Your task to perform on an android device: remove spam from my inbox in the gmail app Image 0: 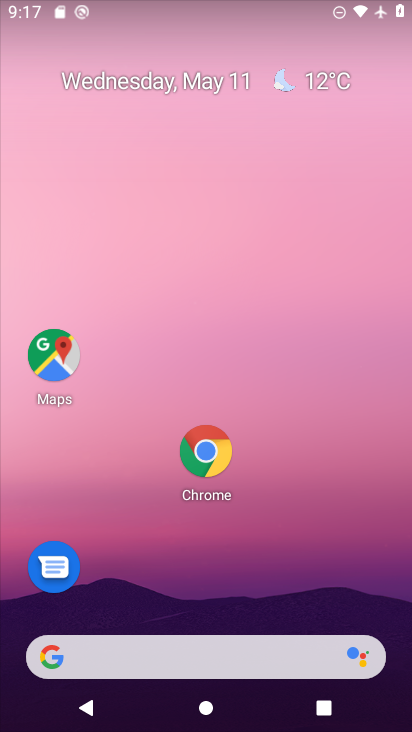
Step 0: drag from (136, 657) to (251, 141)
Your task to perform on an android device: remove spam from my inbox in the gmail app Image 1: 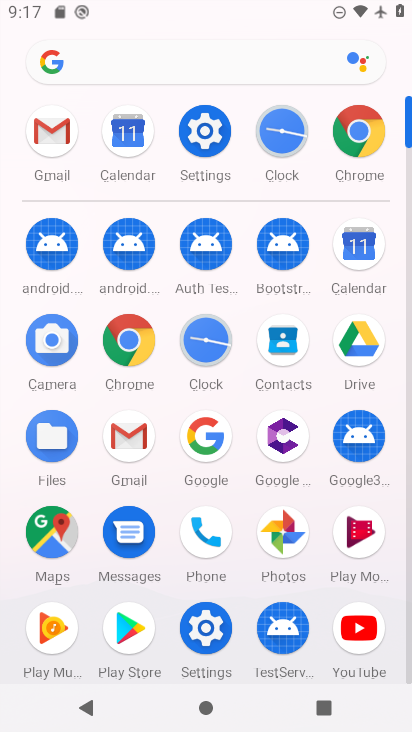
Step 1: click (47, 139)
Your task to perform on an android device: remove spam from my inbox in the gmail app Image 2: 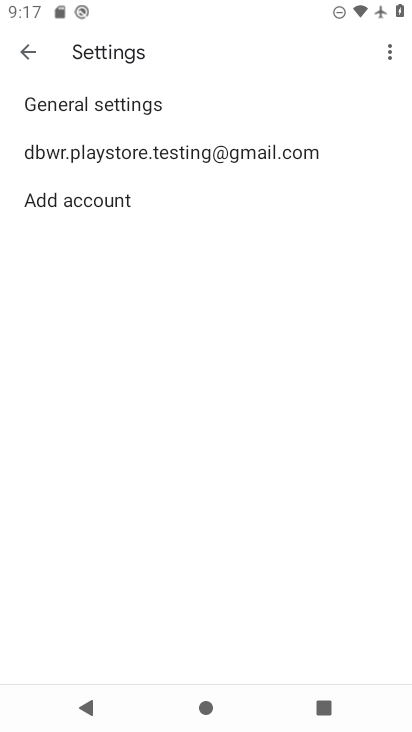
Step 2: click (28, 51)
Your task to perform on an android device: remove spam from my inbox in the gmail app Image 3: 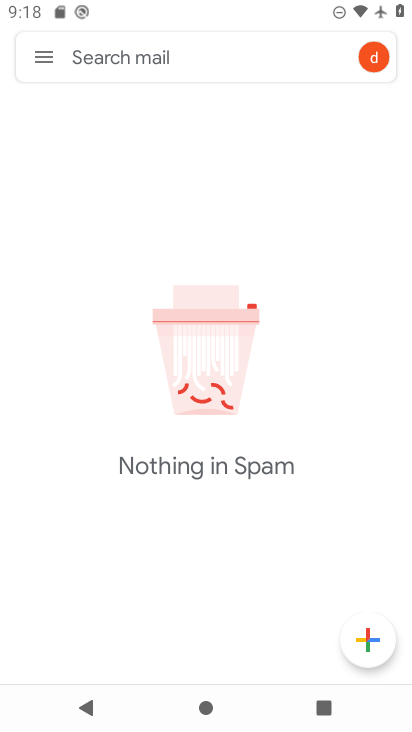
Step 3: task complete